Your task to perform on an android device: Open location settings Image 0: 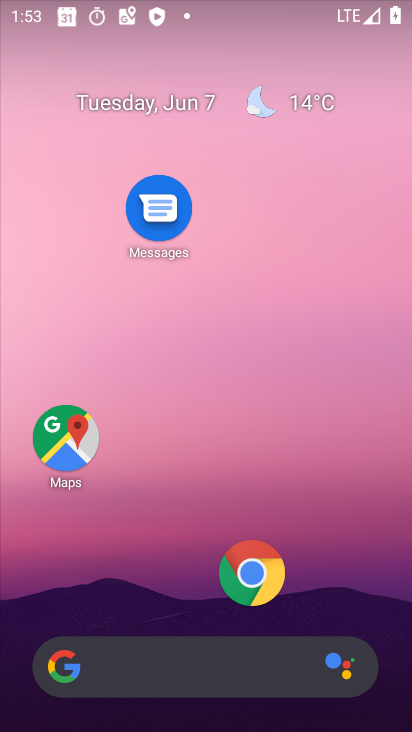
Step 0: press home button
Your task to perform on an android device: Open location settings Image 1: 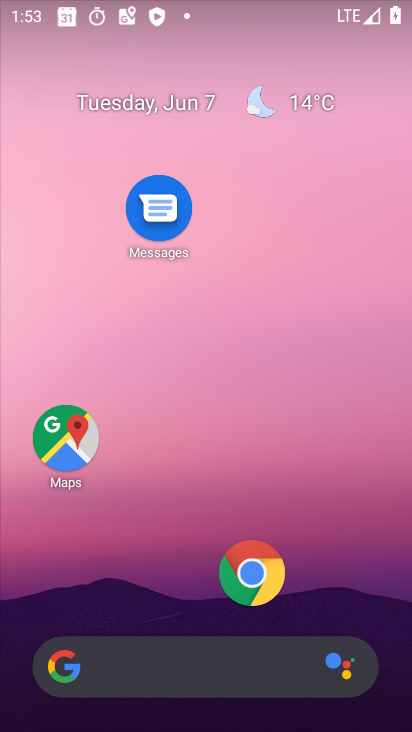
Step 1: drag from (206, 617) to (283, 97)
Your task to perform on an android device: Open location settings Image 2: 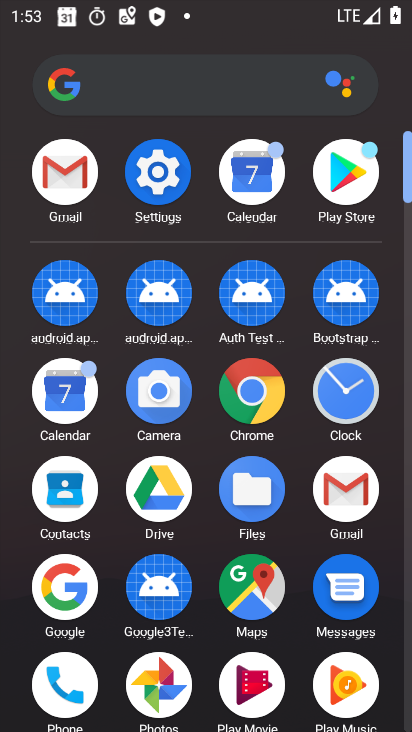
Step 2: click (157, 169)
Your task to perform on an android device: Open location settings Image 3: 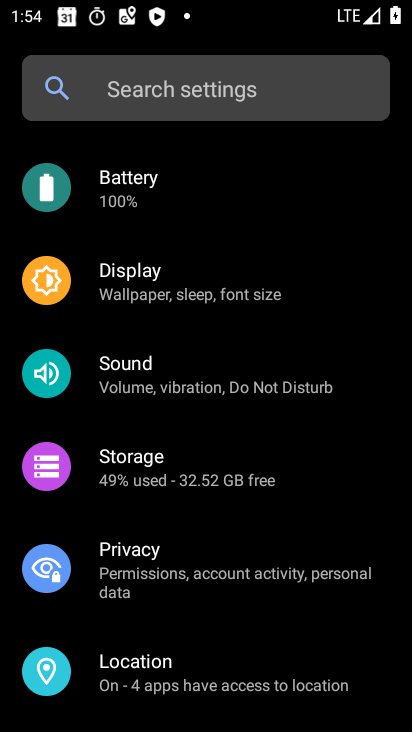
Step 3: click (184, 659)
Your task to perform on an android device: Open location settings Image 4: 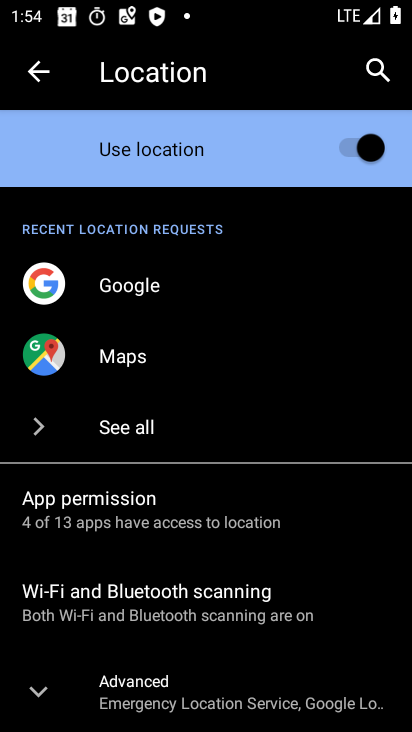
Step 4: click (43, 687)
Your task to perform on an android device: Open location settings Image 5: 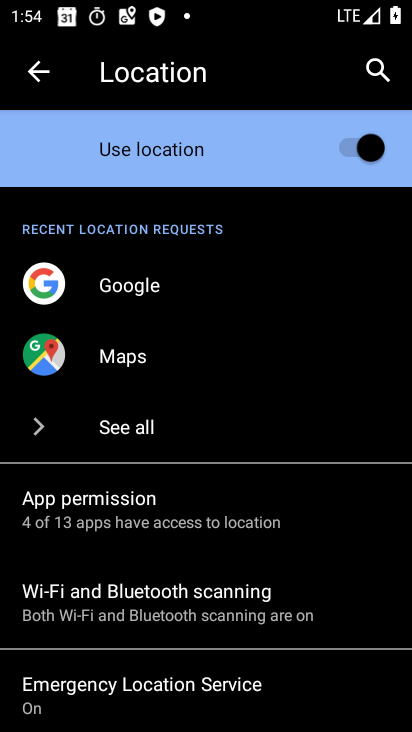
Step 5: task complete